Your task to perform on an android device: turn on airplane mode Image 0: 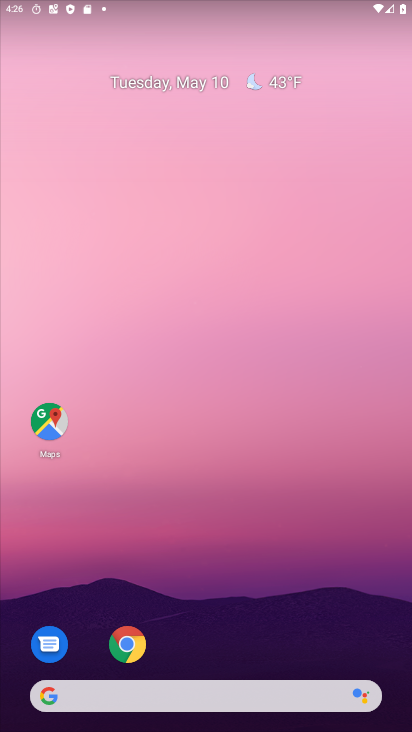
Step 0: drag from (221, 680) to (223, 223)
Your task to perform on an android device: turn on airplane mode Image 1: 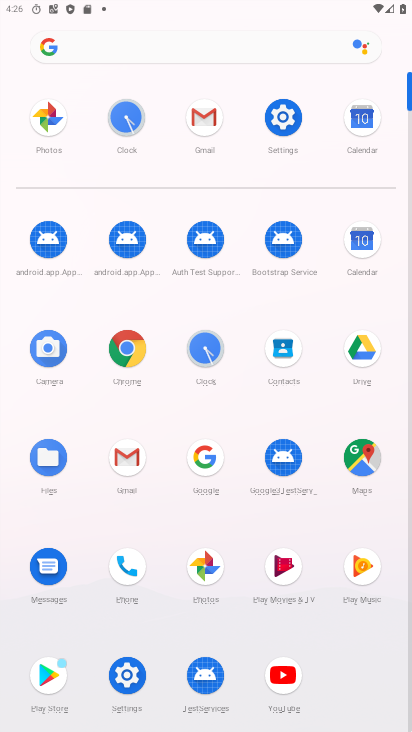
Step 1: click (270, 116)
Your task to perform on an android device: turn on airplane mode Image 2: 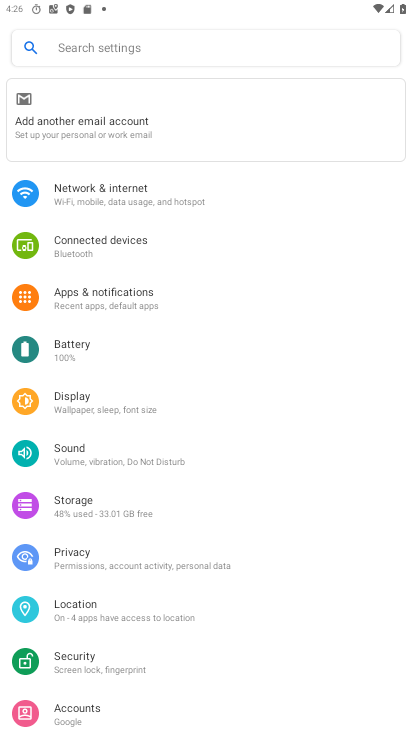
Step 2: click (144, 204)
Your task to perform on an android device: turn on airplane mode Image 3: 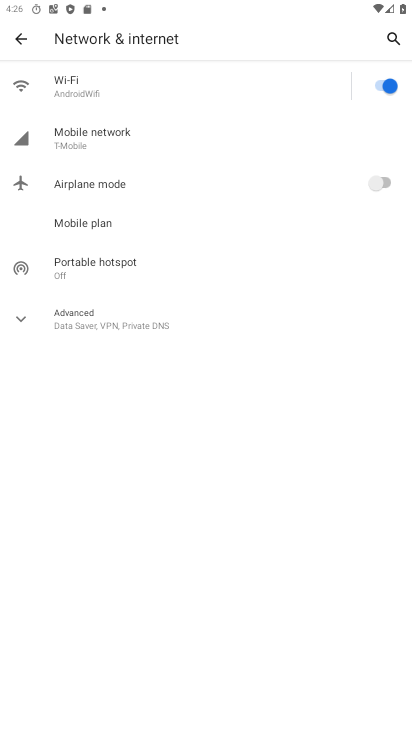
Step 3: click (383, 184)
Your task to perform on an android device: turn on airplane mode Image 4: 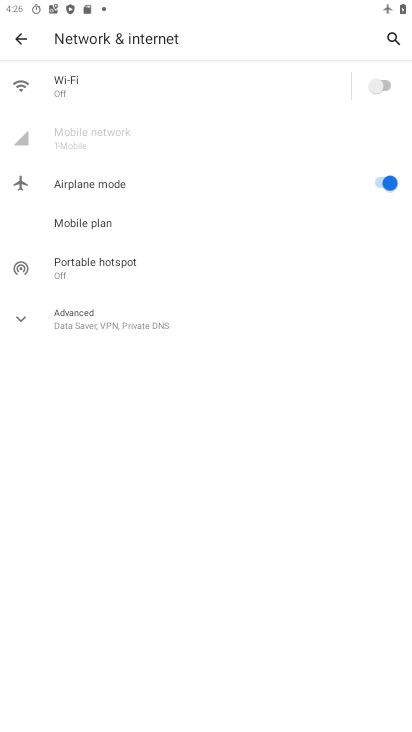
Step 4: task complete